Your task to perform on an android device: Turn on the flashlight Image 0: 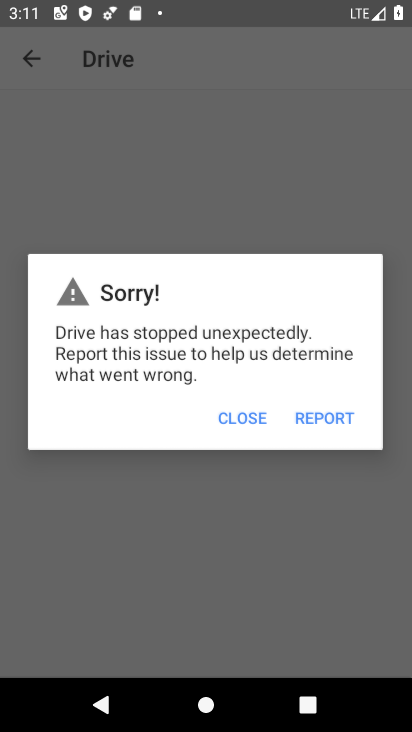
Step 0: press home button
Your task to perform on an android device: Turn on the flashlight Image 1: 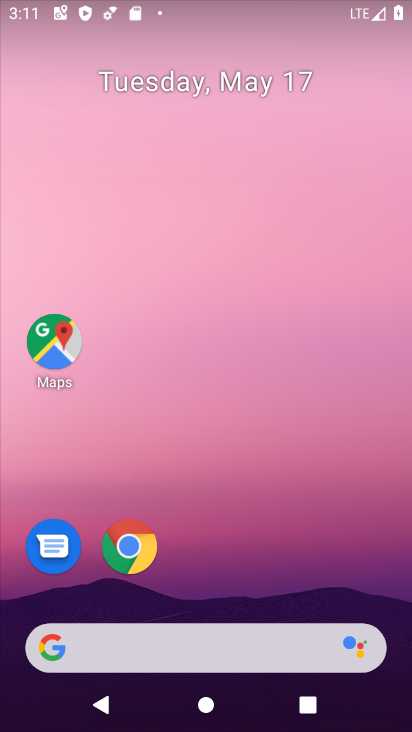
Step 1: task complete